Your task to perform on an android device: Go to accessibility settings Image 0: 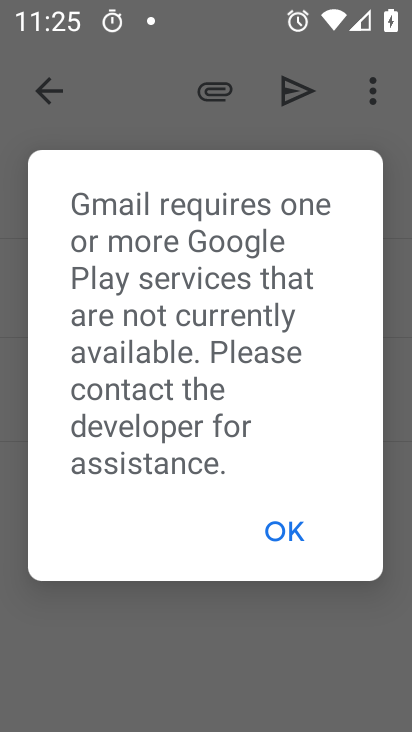
Step 0: press home button
Your task to perform on an android device: Go to accessibility settings Image 1: 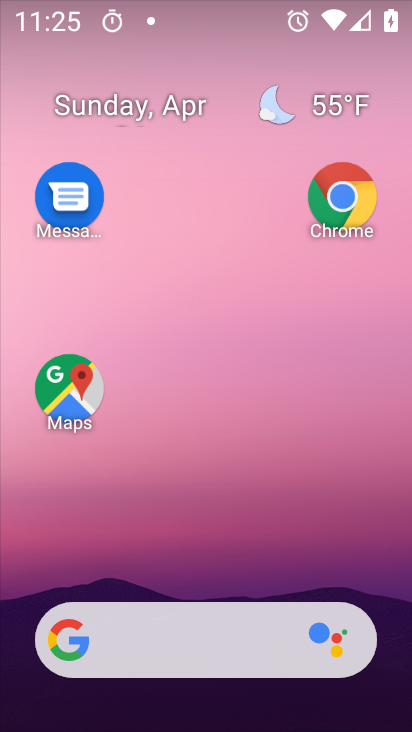
Step 1: drag from (187, 591) to (201, 15)
Your task to perform on an android device: Go to accessibility settings Image 2: 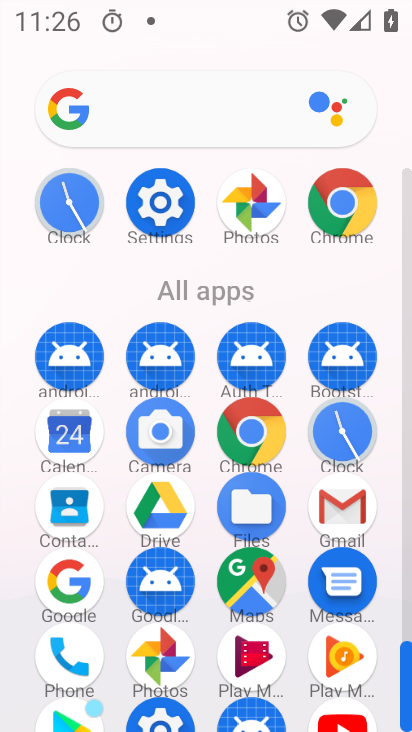
Step 2: click (159, 214)
Your task to perform on an android device: Go to accessibility settings Image 3: 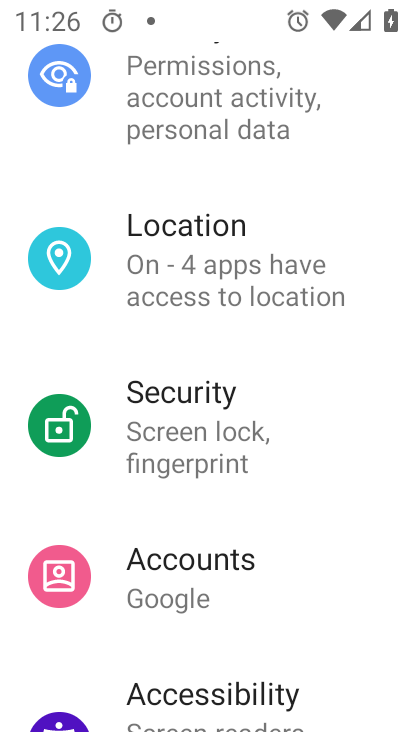
Step 3: click (167, 684)
Your task to perform on an android device: Go to accessibility settings Image 4: 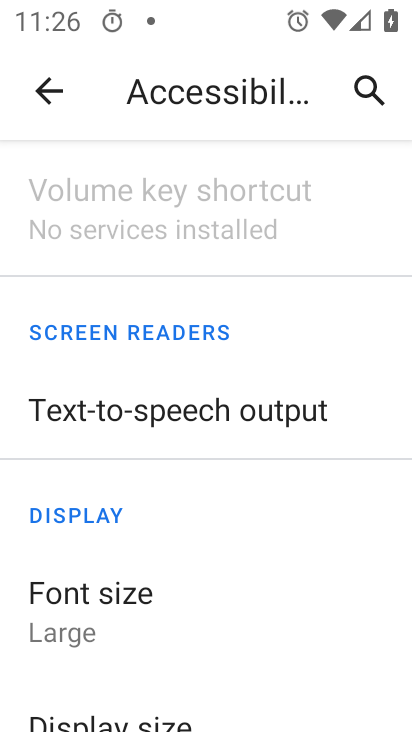
Step 4: task complete